Your task to perform on an android device: see creations saved in the google photos Image 0: 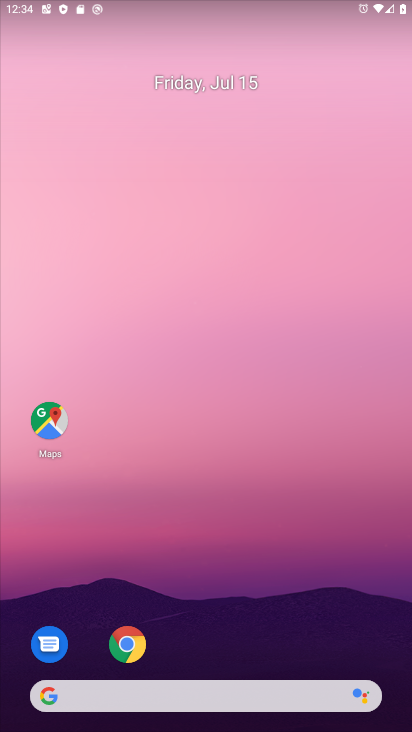
Step 0: drag from (359, 649) to (216, 69)
Your task to perform on an android device: see creations saved in the google photos Image 1: 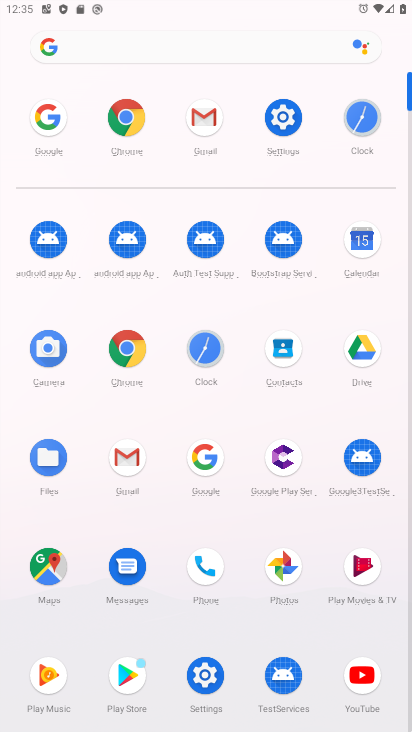
Step 1: click (273, 590)
Your task to perform on an android device: see creations saved in the google photos Image 2: 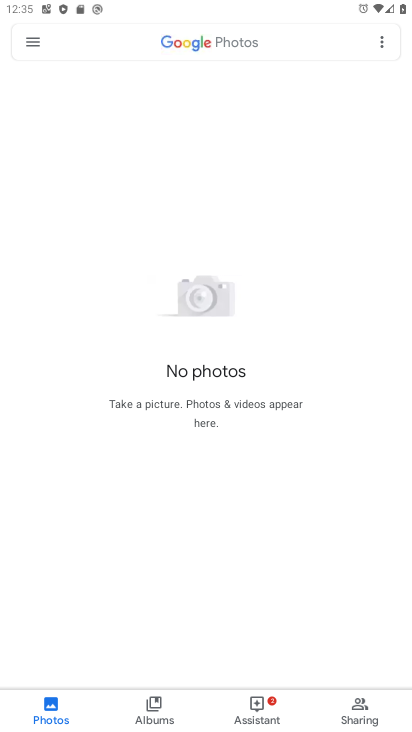
Step 2: click (171, 40)
Your task to perform on an android device: see creations saved in the google photos Image 3: 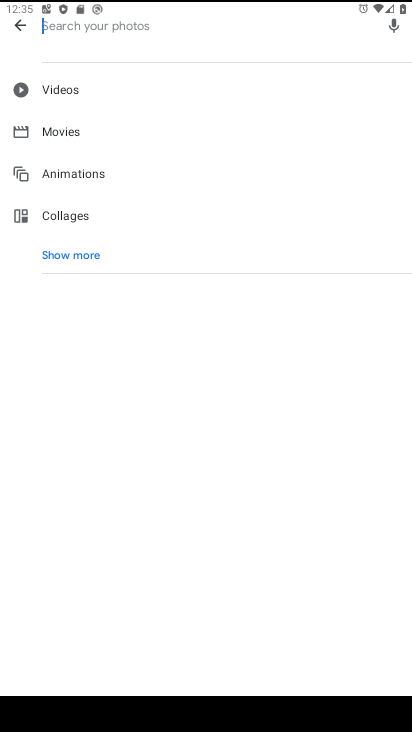
Step 3: click (90, 253)
Your task to perform on an android device: see creations saved in the google photos Image 4: 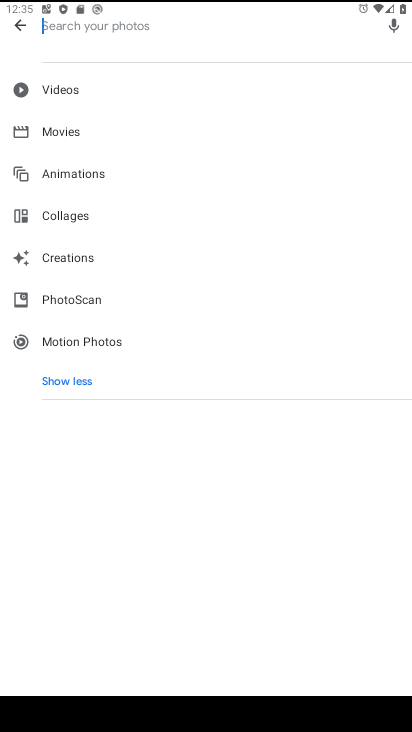
Step 4: click (79, 261)
Your task to perform on an android device: see creations saved in the google photos Image 5: 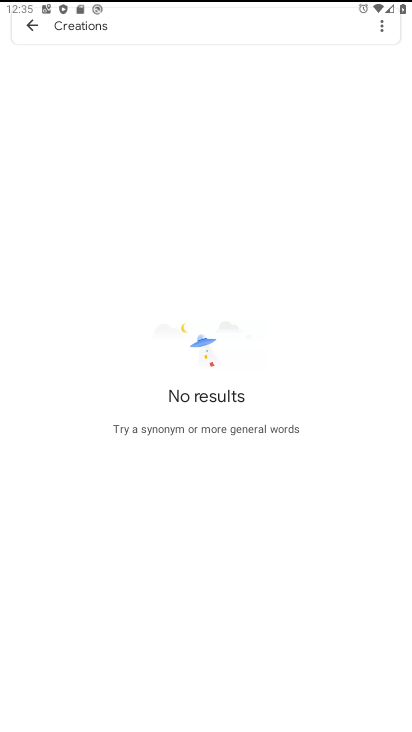
Step 5: task complete